Your task to perform on an android device: open device folders in google photos Image 0: 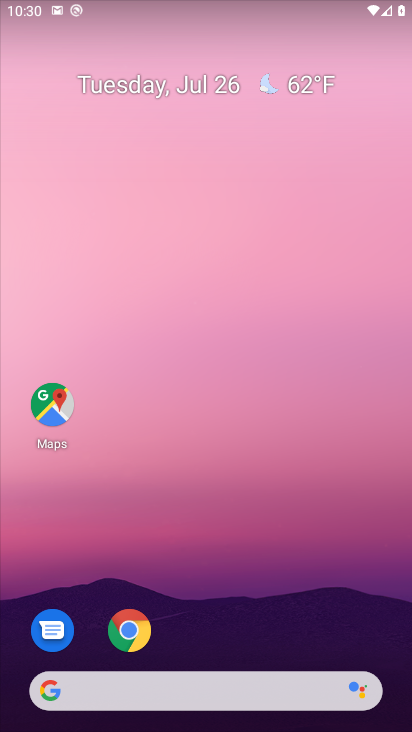
Step 0: drag from (216, 640) to (249, 81)
Your task to perform on an android device: open device folders in google photos Image 1: 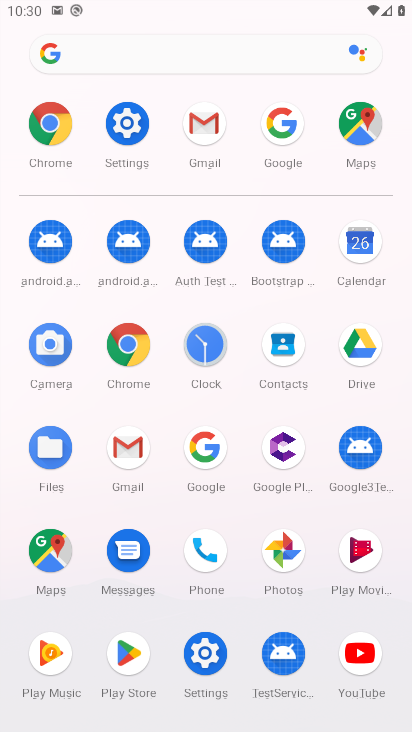
Step 1: click (283, 543)
Your task to perform on an android device: open device folders in google photos Image 2: 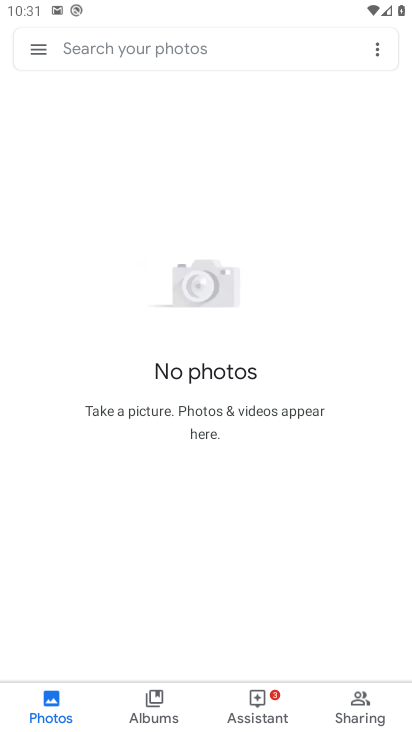
Step 2: click (37, 42)
Your task to perform on an android device: open device folders in google photos Image 3: 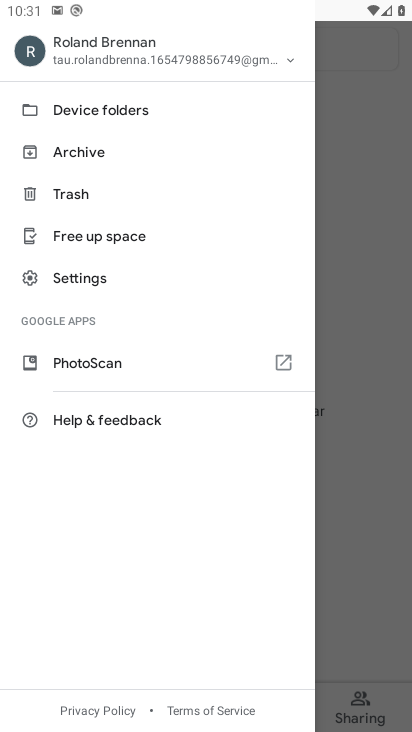
Step 3: click (99, 111)
Your task to perform on an android device: open device folders in google photos Image 4: 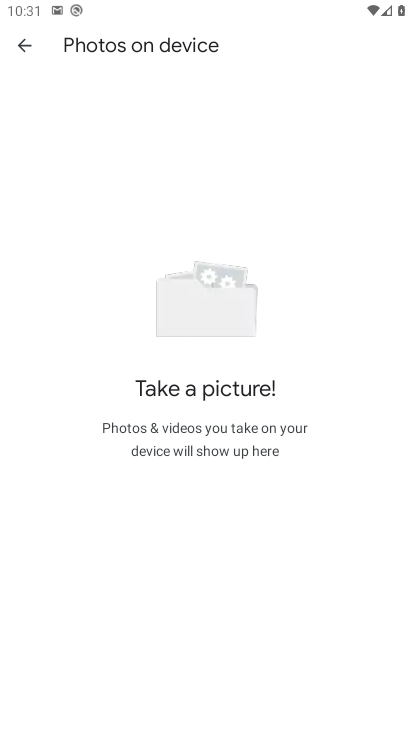
Step 4: task complete